Your task to perform on an android device: open chrome privacy settings Image 0: 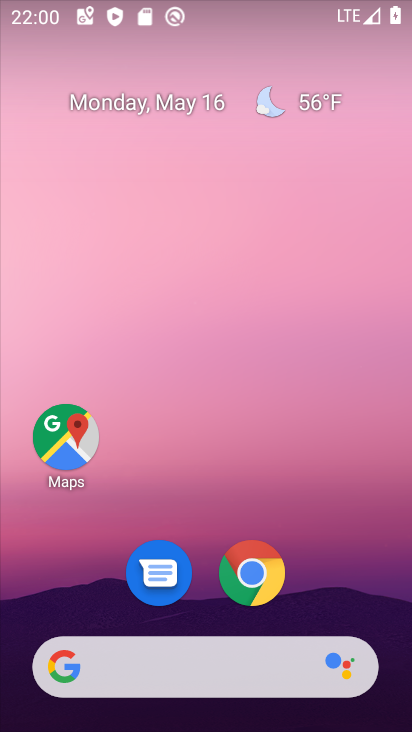
Step 0: click (252, 566)
Your task to perform on an android device: open chrome privacy settings Image 1: 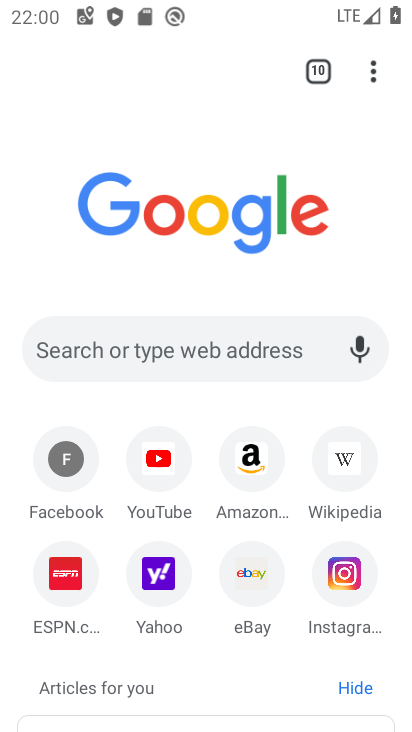
Step 1: click (371, 76)
Your task to perform on an android device: open chrome privacy settings Image 2: 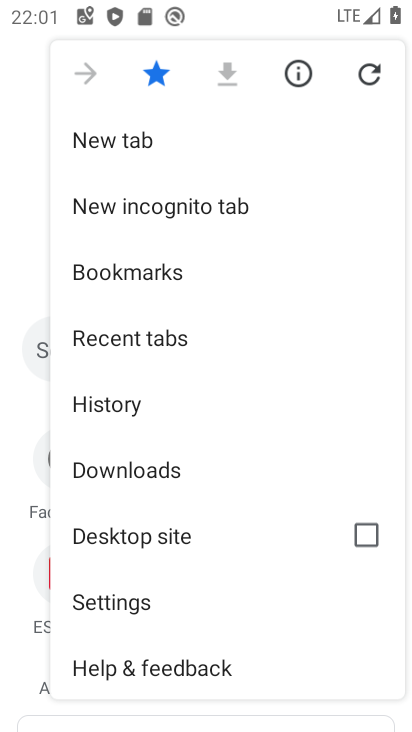
Step 2: click (129, 604)
Your task to perform on an android device: open chrome privacy settings Image 3: 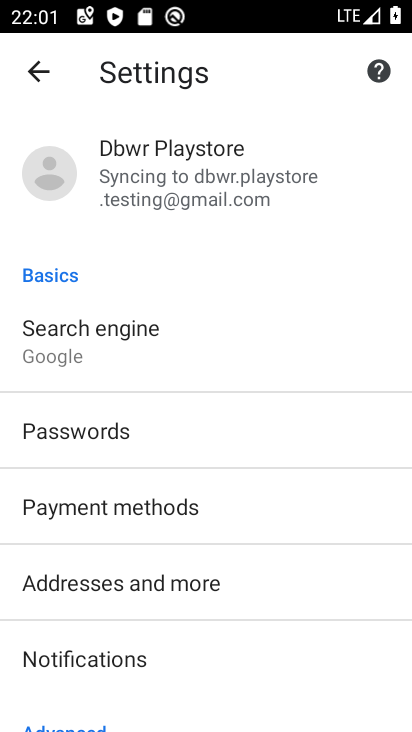
Step 3: drag from (140, 676) to (156, 350)
Your task to perform on an android device: open chrome privacy settings Image 4: 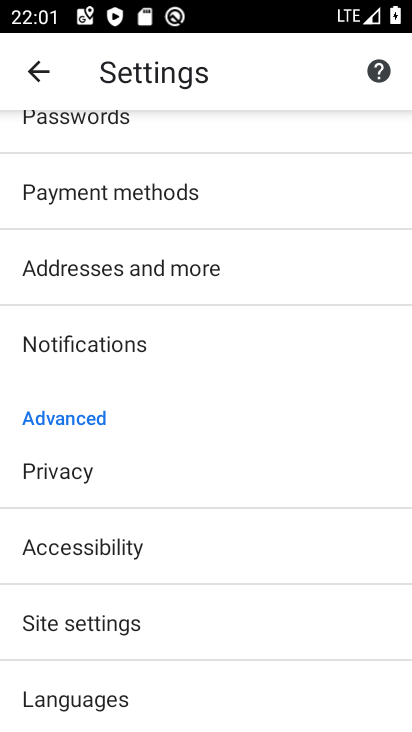
Step 4: click (64, 468)
Your task to perform on an android device: open chrome privacy settings Image 5: 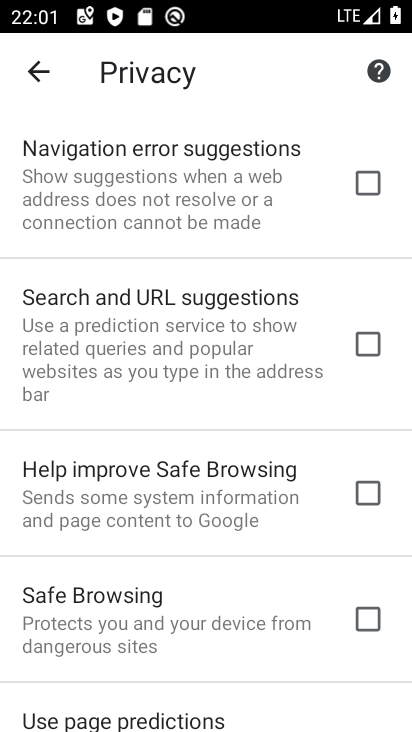
Step 5: task complete